Your task to perform on an android device: open a bookmark in the chrome app Image 0: 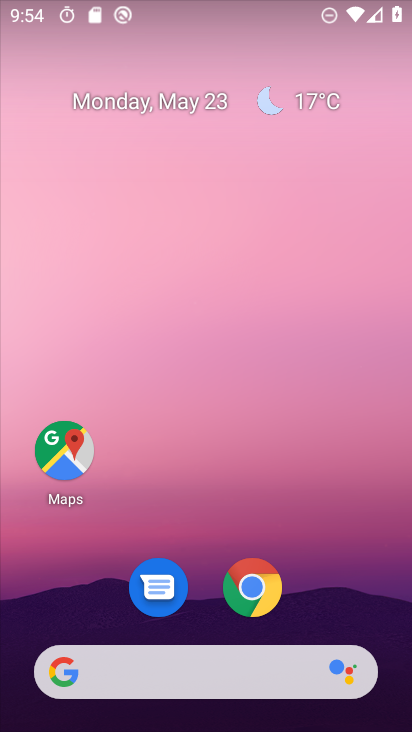
Step 0: click (259, 570)
Your task to perform on an android device: open a bookmark in the chrome app Image 1: 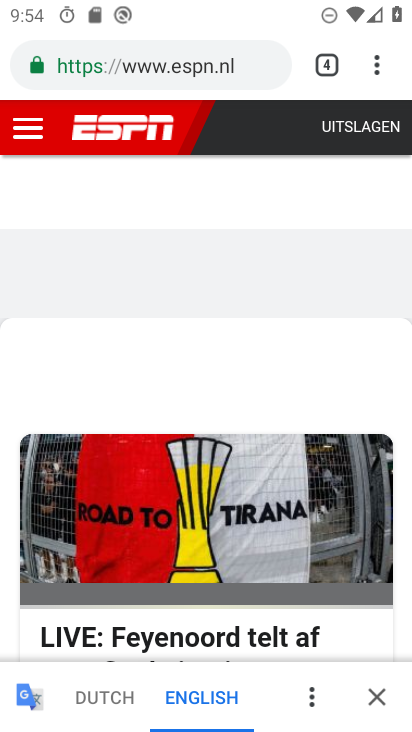
Step 1: drag from (383, 54) to (190, 248)
Your task to perform on an android device: open a bookmark in the chrome app Image 2: 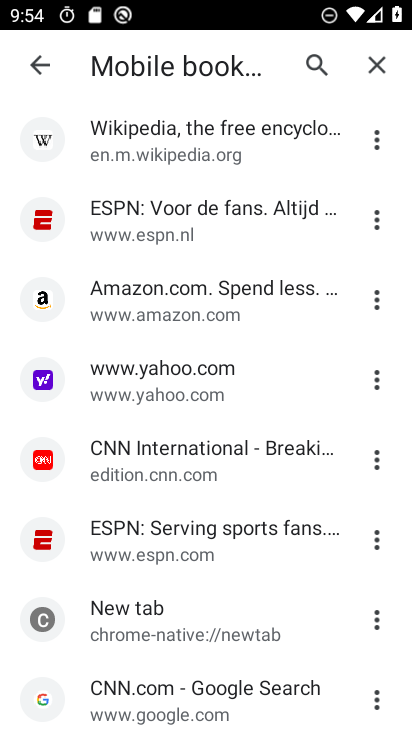
Step 2: click (145, 294)
Your task to perform on an android device: open a bookmark in the chrome app Image 3: 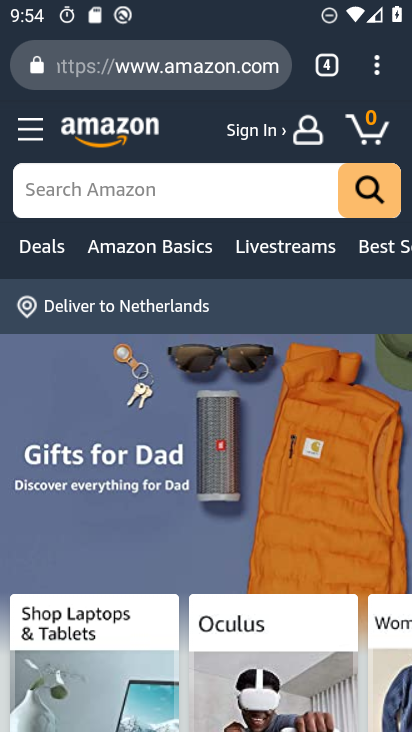
Step 3: task complete